Your task to perform on an android device: Go to Wikipedia Image 0: 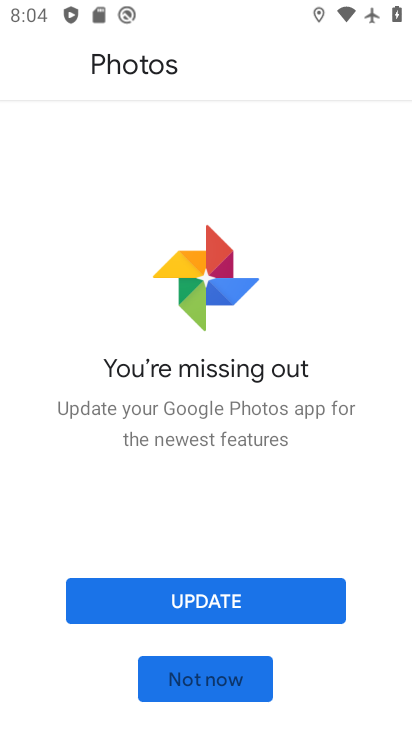
Step 0: press home button
Your task to perform on an android device: Go to Wikipedia Image 1: 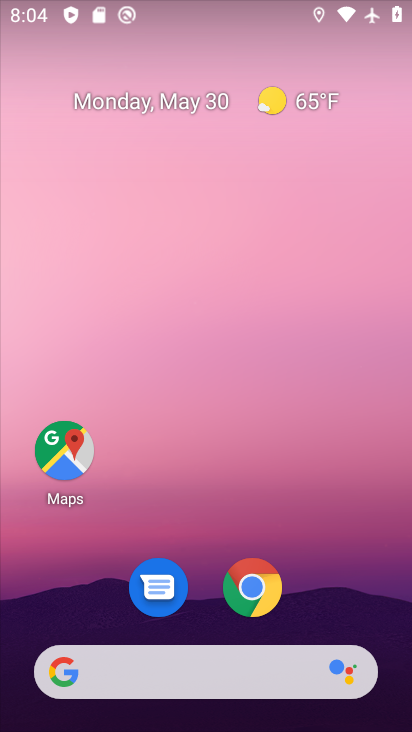
Step 1: click (261, 579)
Your task to perform on an android device: Go to Wikipedia Image 2: 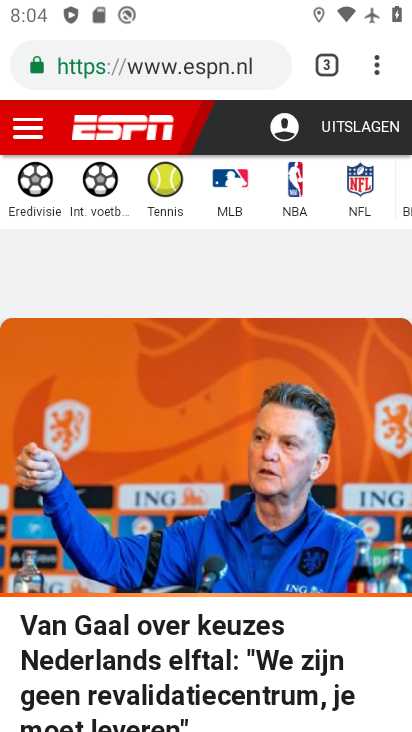
Step 2: drag from (377, 64) to (186, 125)
Your task to perform on an android device: Go to Wikipedia Image 3: 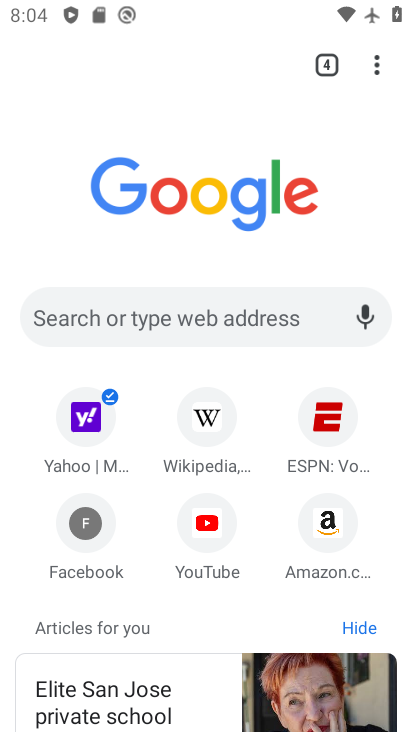
Step 3: click (200, 426)
Your task to perform on an android device: Go to Wikipedia Image 4: 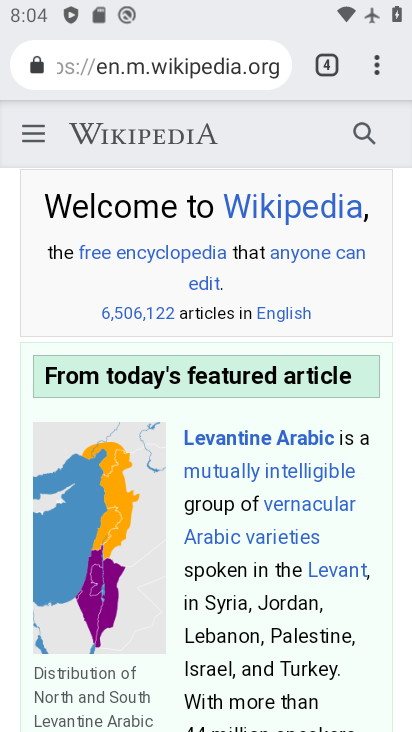
Step 4: task complete